Your task to perform on an android device: Open Amazon Image 0: 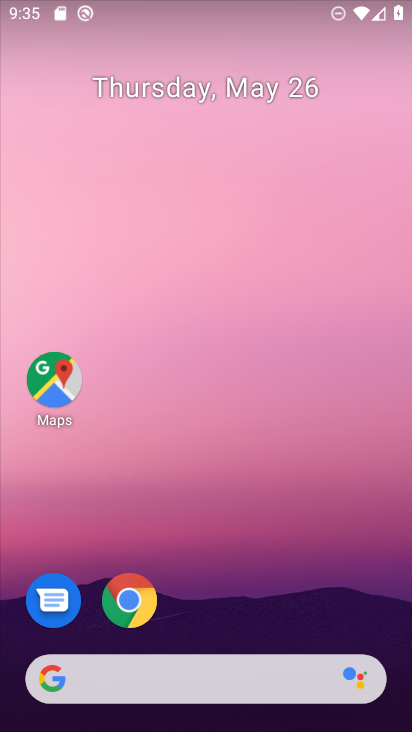
Step 0: click (143, 591)
Your task to perform on an android device: Open Amazon Image 1: 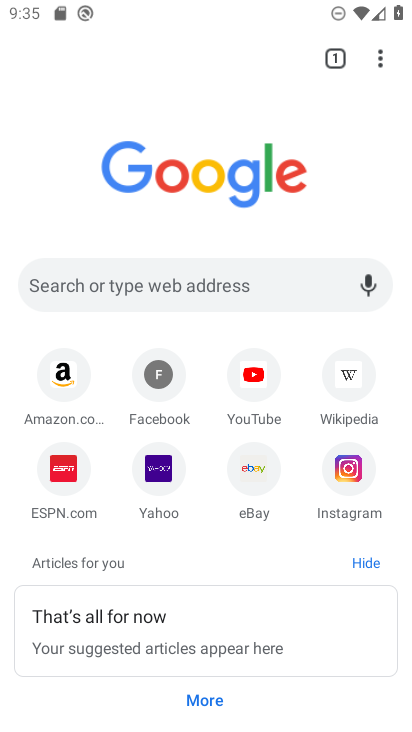
Step 1: click (66, 372)
Your task to perform on an android device: Open Amazon Image 2: 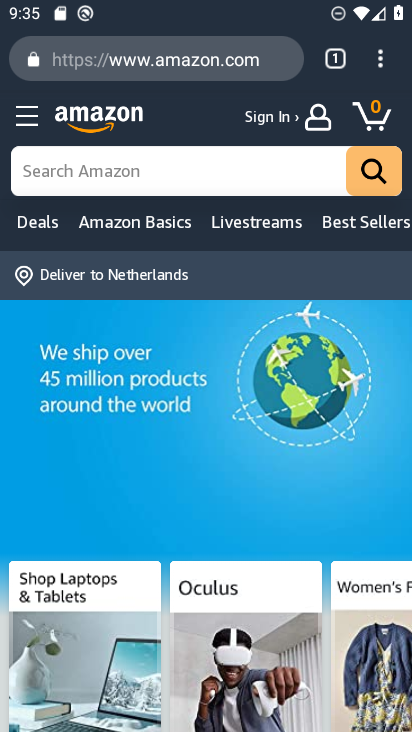
Step 2: task complete